Your task to perform on an android device: Go to Yahoo.com Image 0: 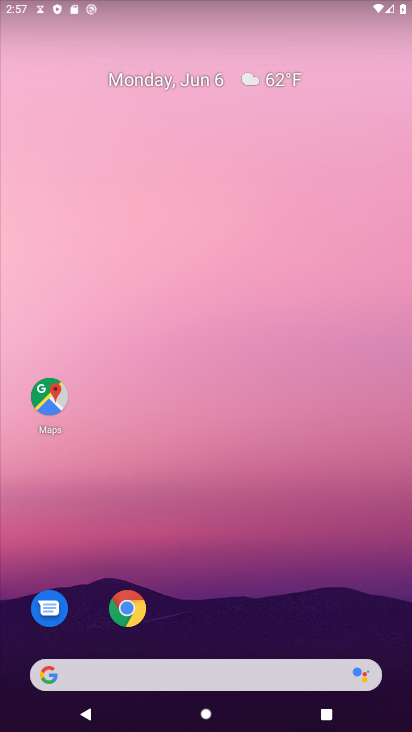
Step 0: click (130, 609)
Your task to perform on an android device: Go to Yahoo.com Image 1: 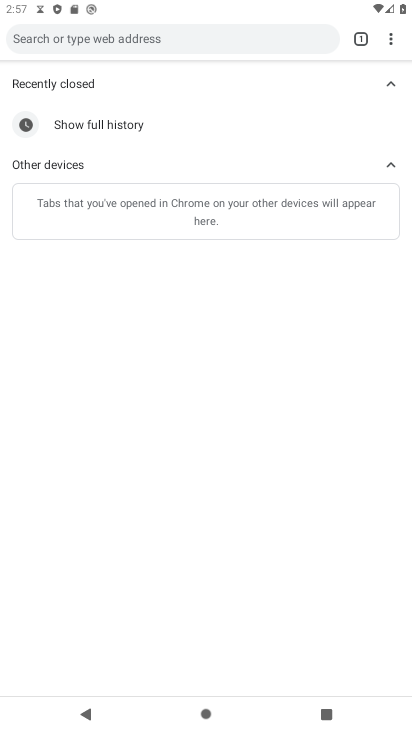
Step 1: click (106, 38)
Your task to perform on an android device: Go to Yahoo.com Image 2: 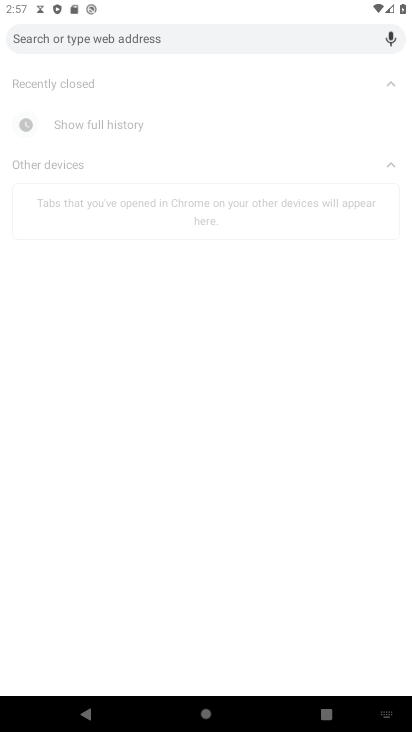
Step 2: type "yahoo.com"
Your task to perform on an android device: Go to Yahoo.com Image 3: 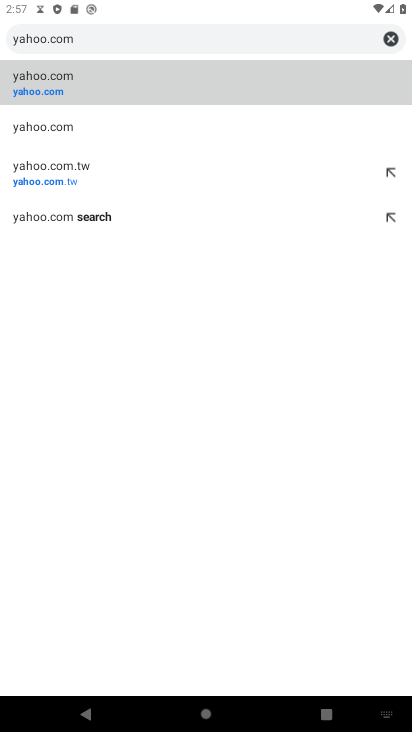
Step 3: click (15, 84)
Your task to perform on an android device: Go to Yahoo.com Image 4: 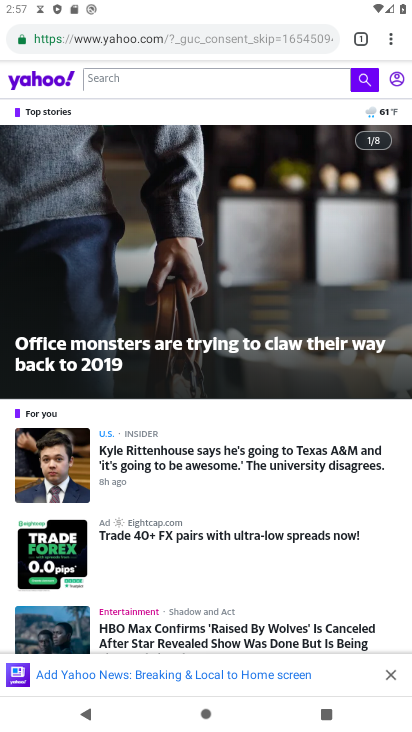
Step 4: task complete